Your task to perform on an android device: remove spam from my inbox in the gmail app Image 0: 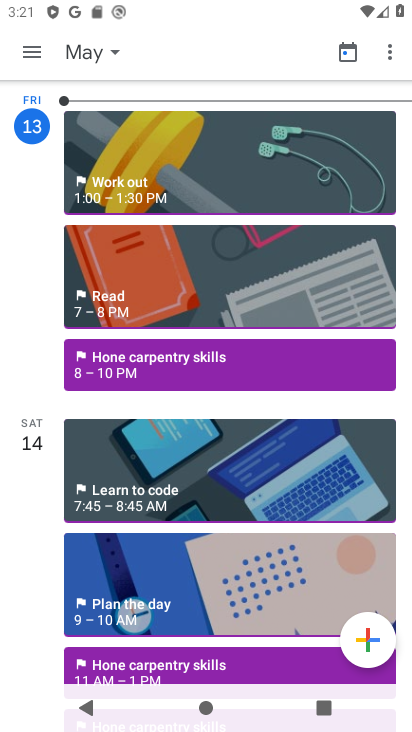
Step 0: press back button
Your task to perform on an android device: remove spam from my inbox in the gmail app Image 1: 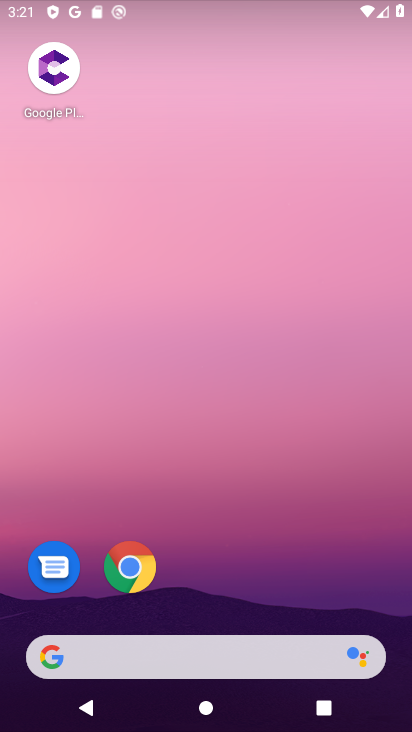
Step 1: drag from (281, 599) to (214, 266)
Your task to perform on an android device: remove spam from my inbox in the gmail app Image 2: 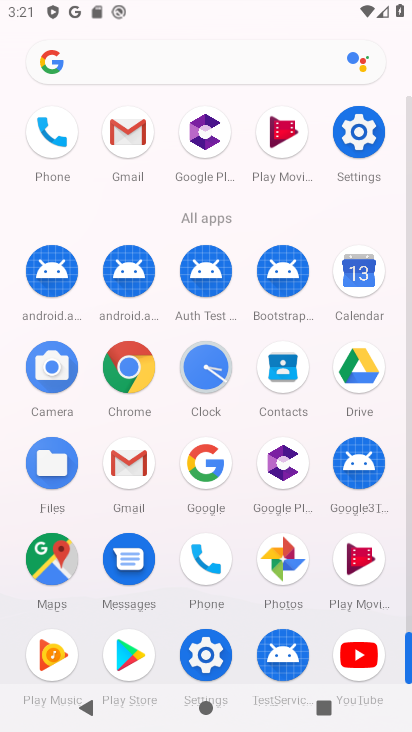
Step 2: click (118, 457)
Your task to perform on an android device: remove spam from my inbox in the gmail app Image 3: 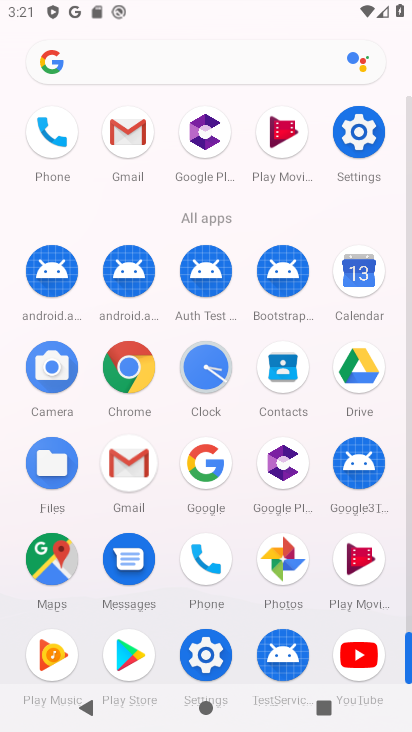
Step 3: click (129, 458)
Your task to perform on an android device: remove spam from my inbox in the gmail app Image 4: 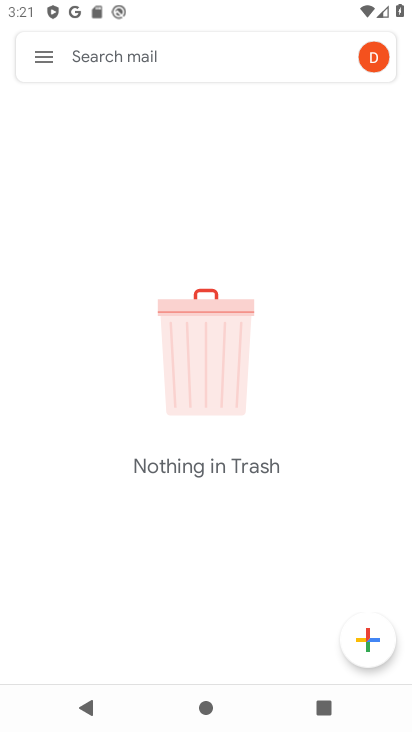
Step 4: click (50, 46)
Your task to perform on an android device: remove spam from my inbox in the gmail app Image 5: 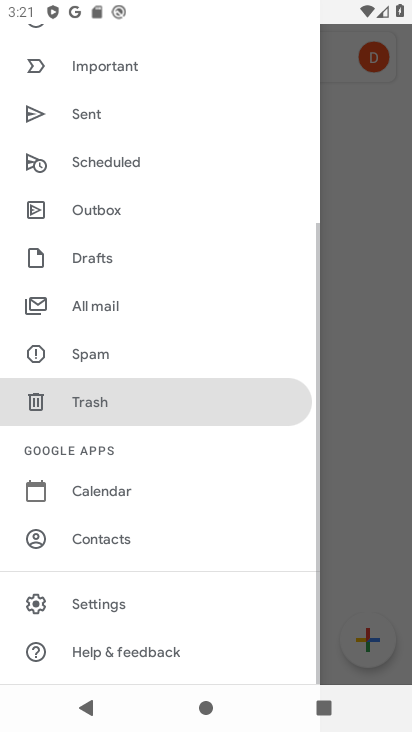
Step 5: click (87, 349)
Your task to perform on an android device: remove spam from my inbox in the gmail app Image 6: 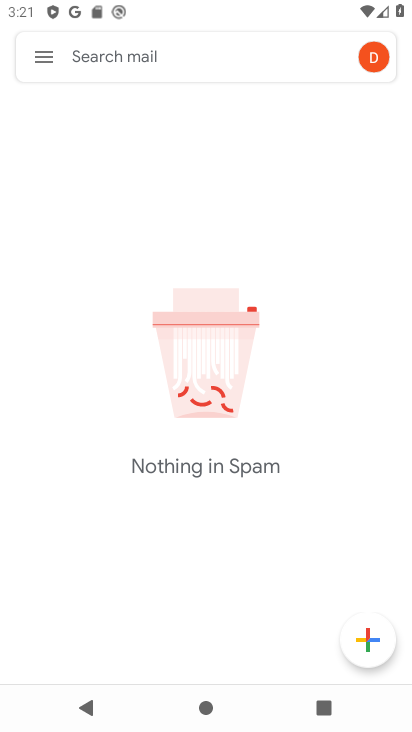
Step 6: task complete